Your task to perform on an android device: turn on priority inbox in the gmail app Image 0: 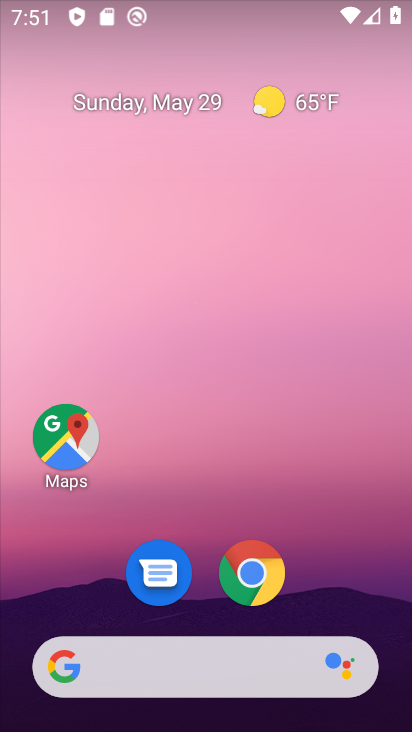
Step 0: drag from (201, 614) to (228, 249)
Your task to perform on an android device: turn on priority inbox in the gmail app Image 1: 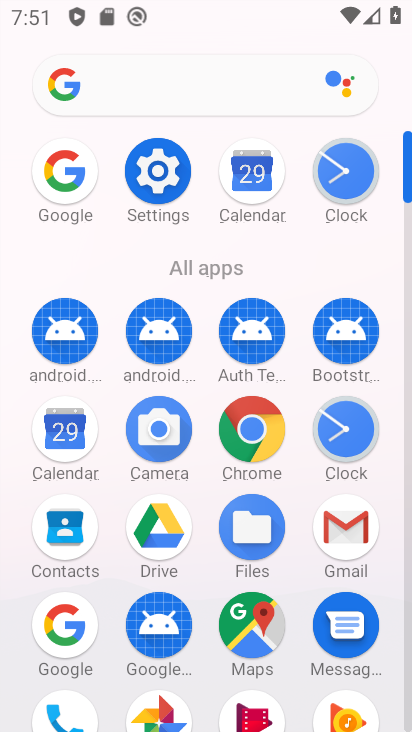
Step 1: click (358, 537)
Your task to perform on an android device: turn on priority inbox in the gmail app Image 2: 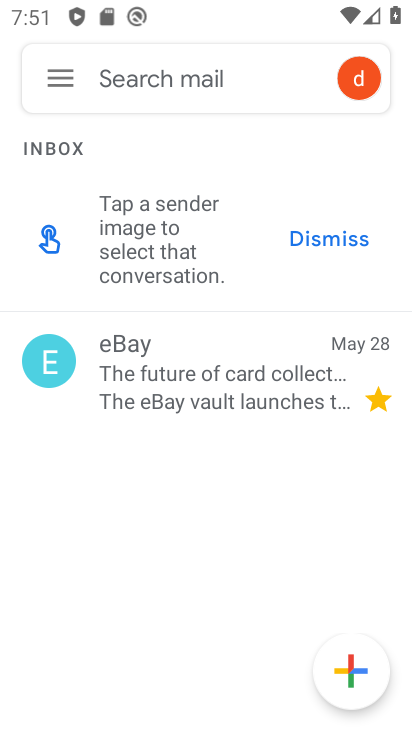
Step 2: click (50, 88)
Your task to perform on an android device: turn on priority inbox in the gmail app Image 3: 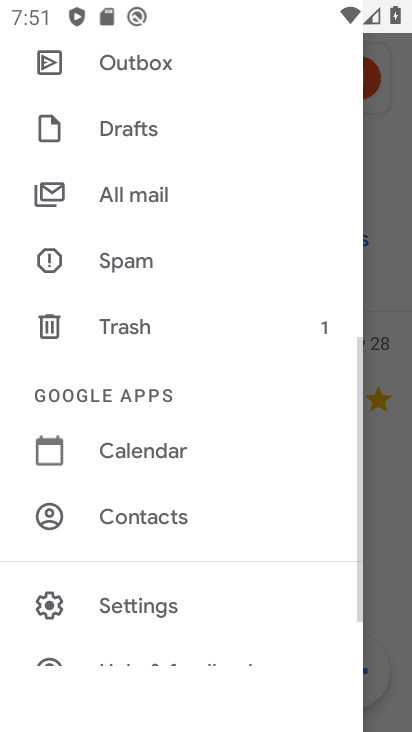
Step 3: click (180, 596)
Your task to perform on an android device: turn on priority inbox in the gmail app Image 4: 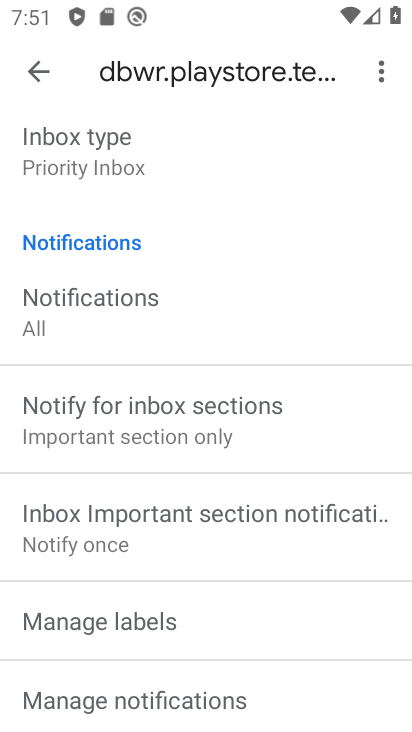
Step 4: click (203, 163)
Your task to perform on an android device: turn on priority inbox in the gmail app Image 5: 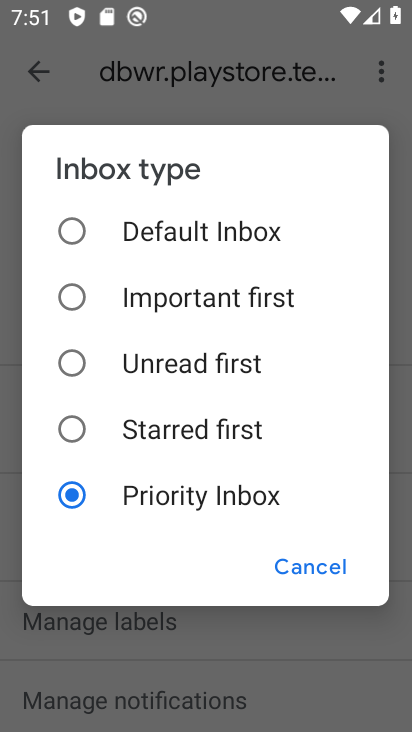
Step 5: task complete